Your task to perform on an android device: Go to calendar. Show me events next week Image 0: 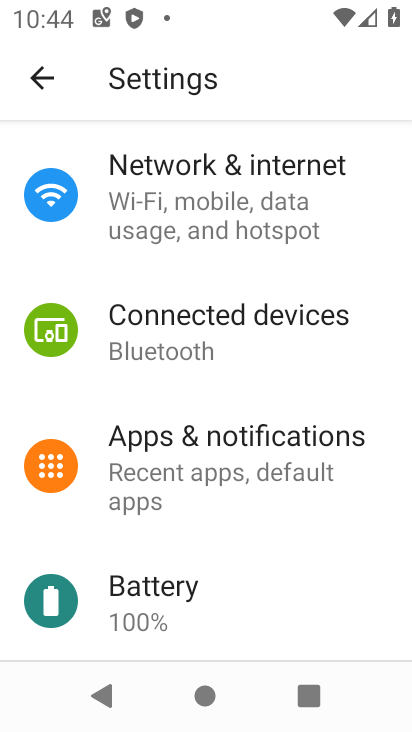
Step 0: press home button
Your task to perform on an android device: Go to calendar. Show me events next week Image 1: 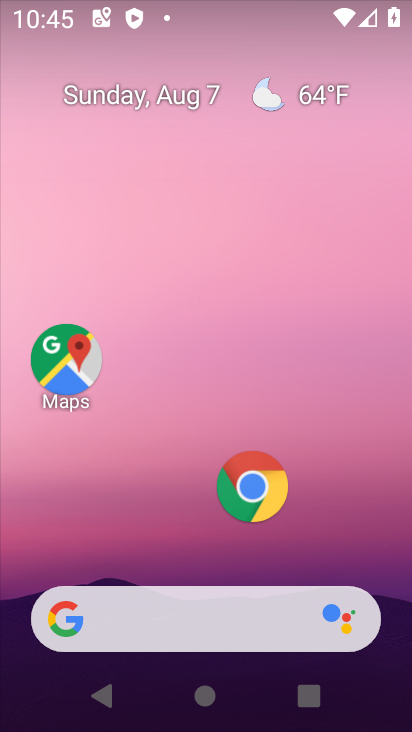
Step 1: drag from (160, 687) to (250, 62)
Your task to perform on an android device: Go to calendar. Show me events next week Image 2: 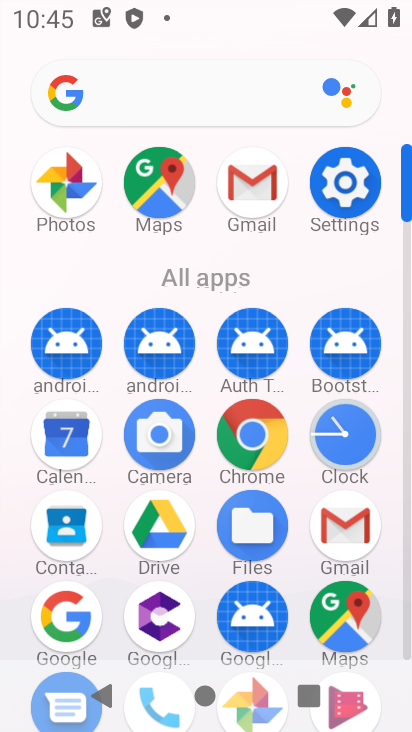
Step 2: click (72, 449)
Your task to perform on an android device: Go to calendar. Show me events next week Image 3: 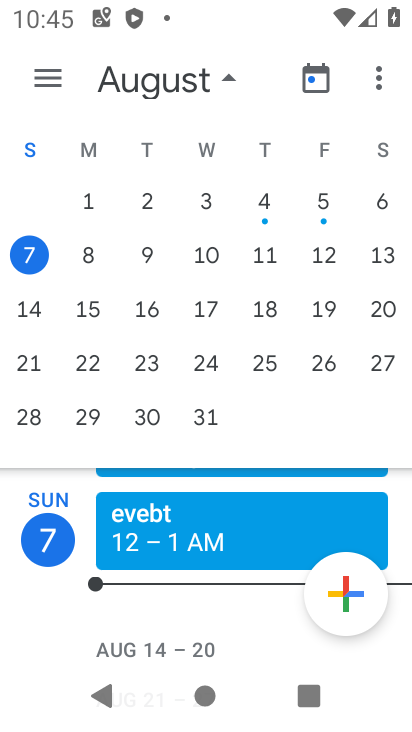
Step 3: click (28, 314)
Your task to perform on an android device: Go to calendar. Show me events next week Image 4: 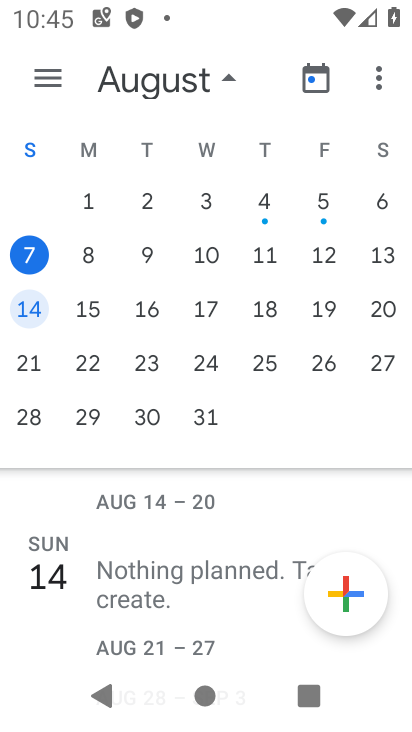
Step 4: task complete